Your task to perform on an android device: Go to Reddit.com Image 0: 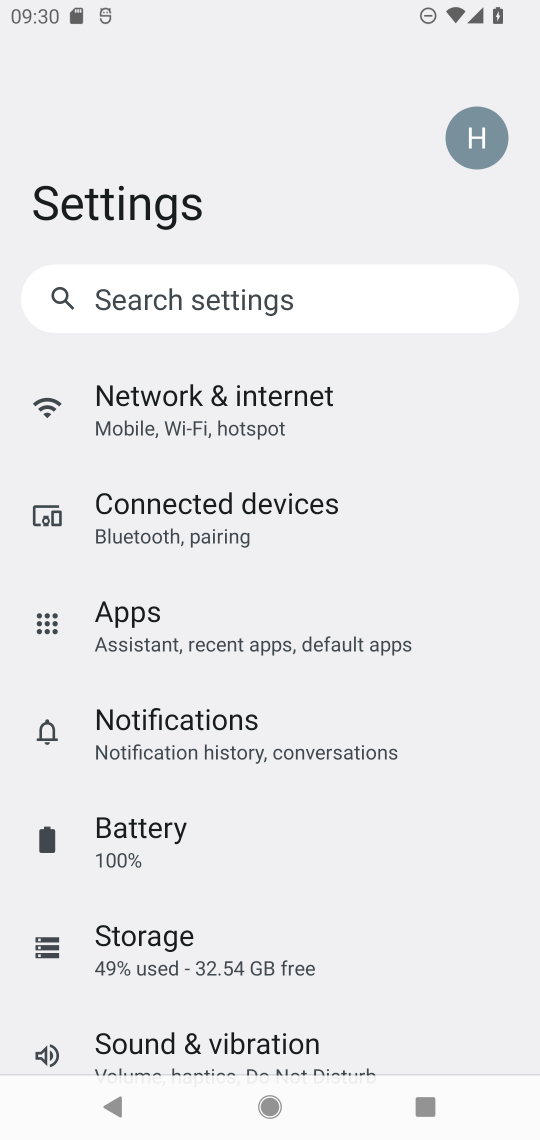
Step 0: drag from (320, 590) to (304, 264)
Your task to perform on an android device: Go to Reddit.com Image 1: 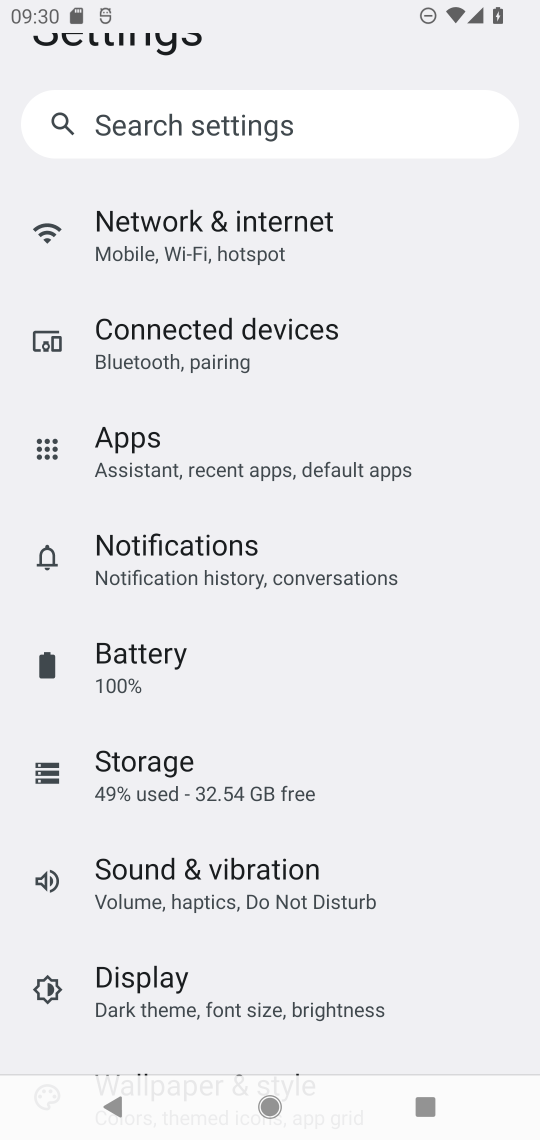
Step 1: press home button
Your task to perform on an android device: Go to Reddit.com Image 2: 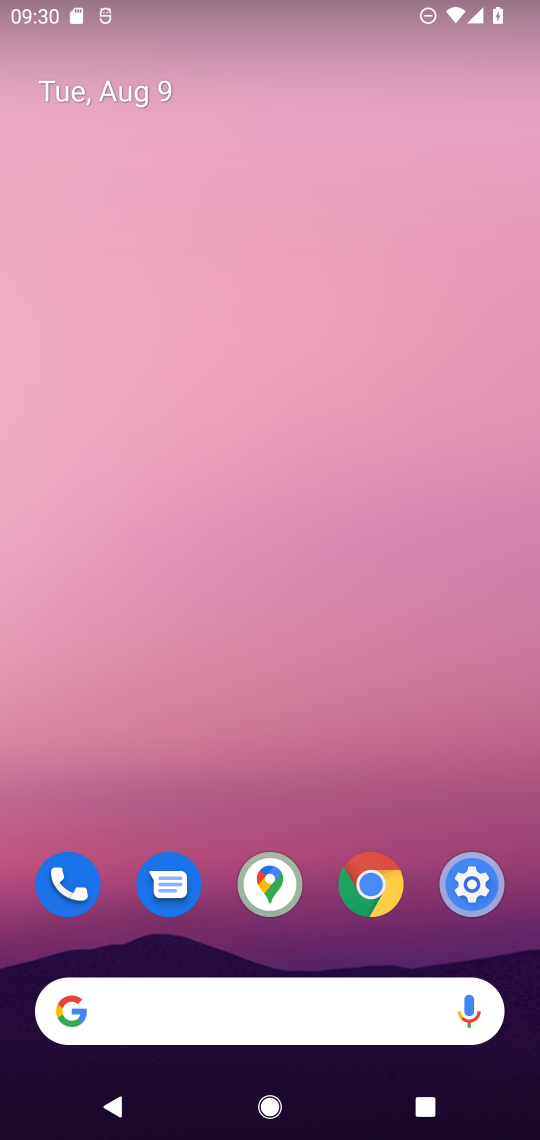
Step 2: drag from (280, 1019) to (254, 294)
Your task to perform on an android device: Go to Reddit.com Image 3: 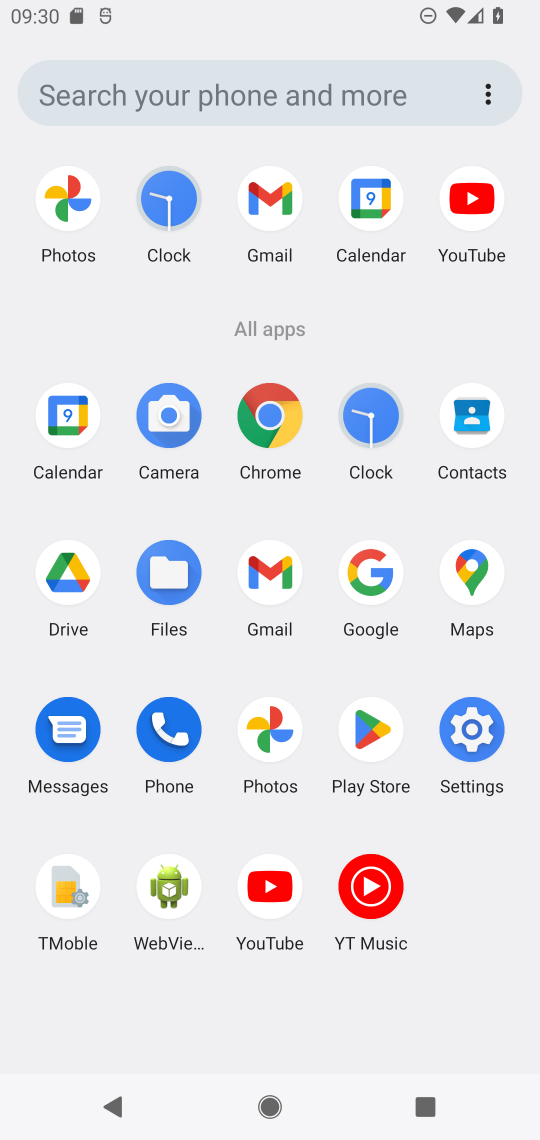
Step 3: click (261, 422)
Your task to perform on an android device: Go to Reddit.com Image 4: 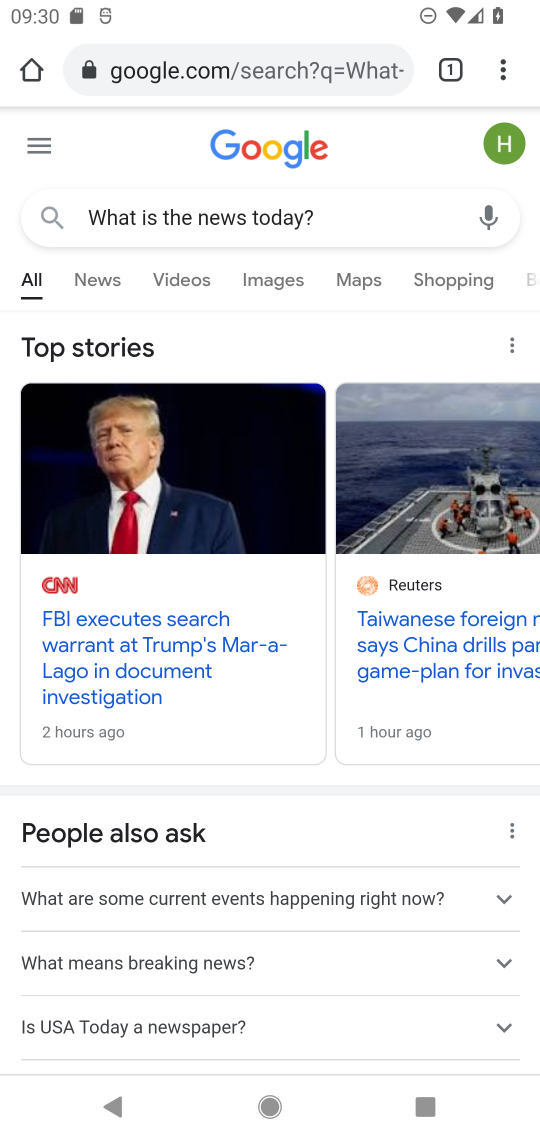
Step 4: click (500, 60)
Your task to perform on an android device: Go to Reddit.com Image 5: 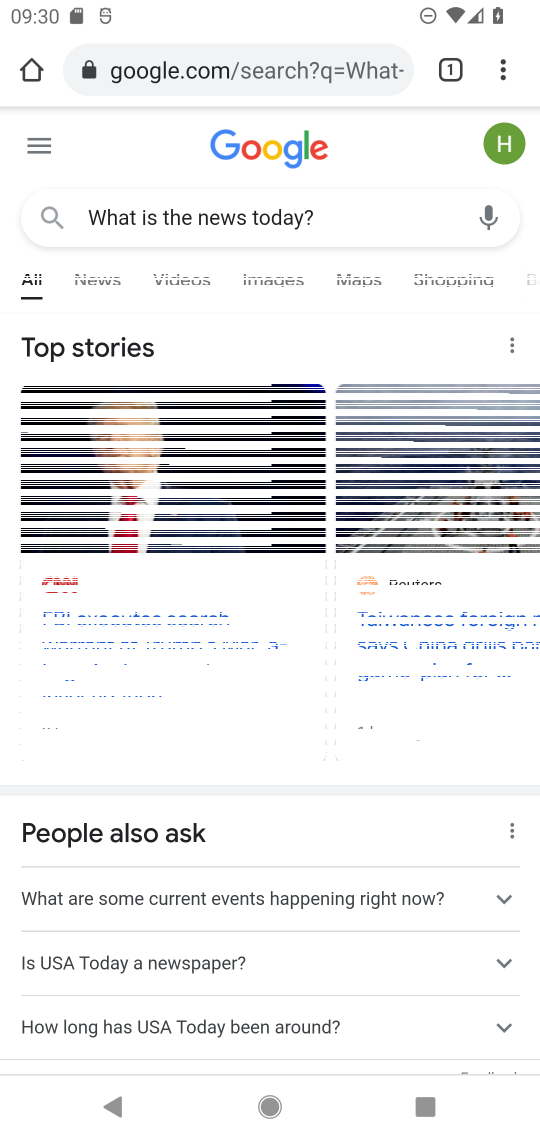
Step 5: click (500, 60)
Your task to perform on an android device: Go to Reddit.com Image 6: 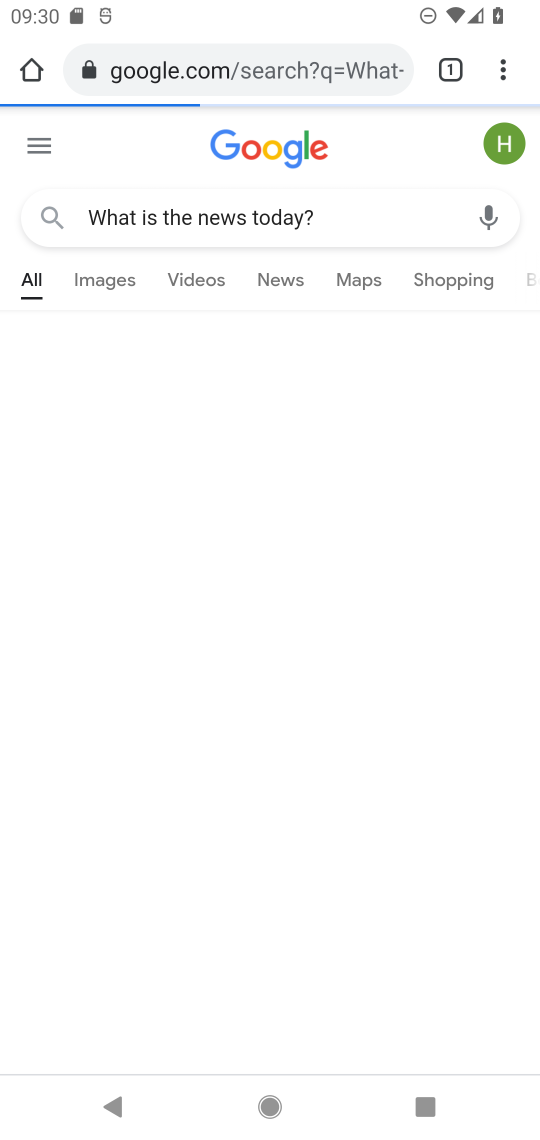
Step 6: click (500, 60)
Your task to perform on an android device: Go to Reddit.com Image 7: 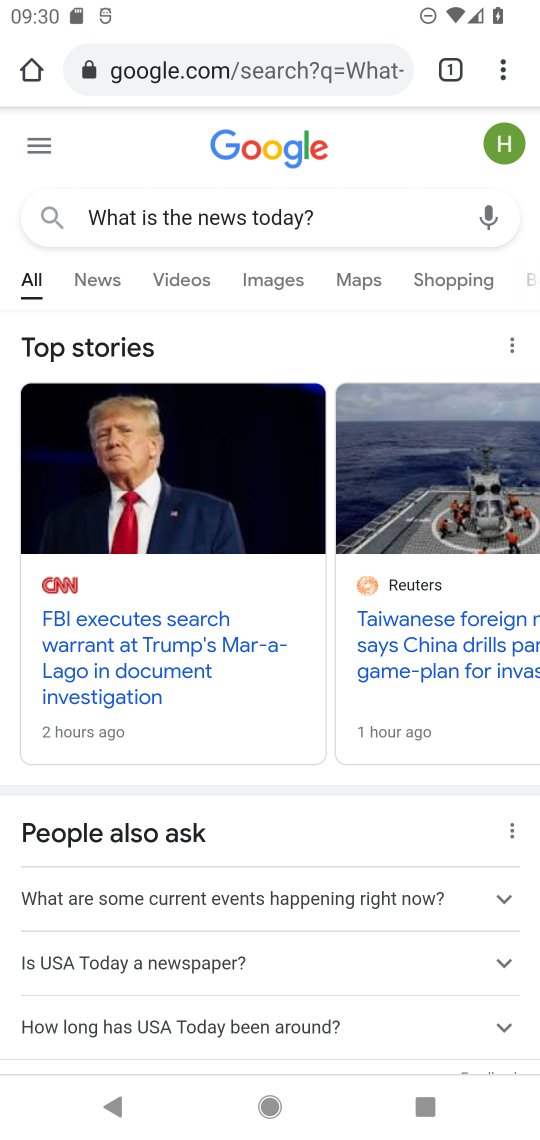
Step 7: click (504, 60)
Your task to perform on an android device: Go to Reddit.com Image 8: 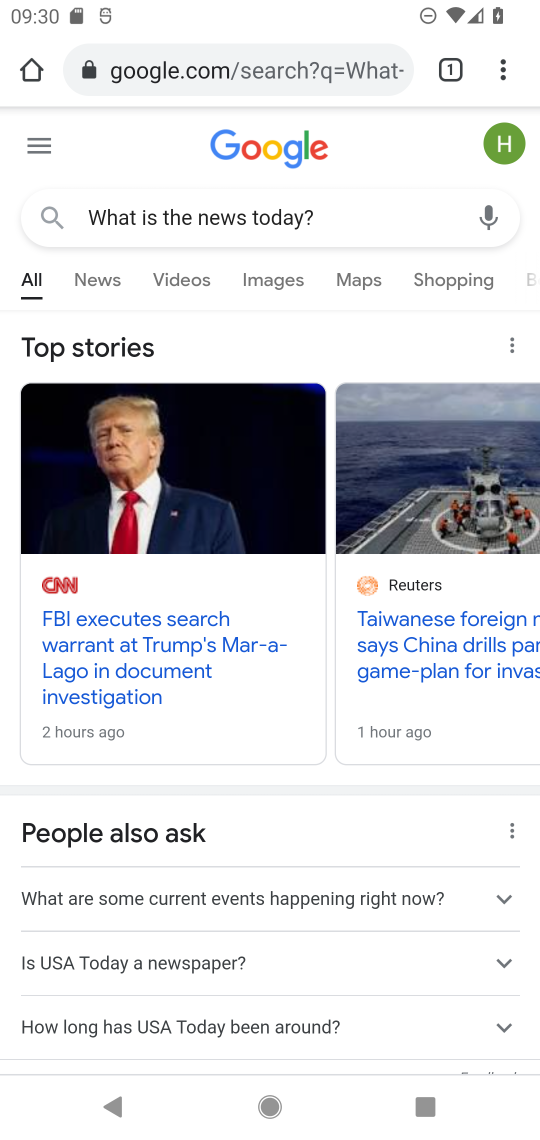
Step 8: click (506, 74)
Your task to perform on an android device: Go to Reddit.com Image 9: 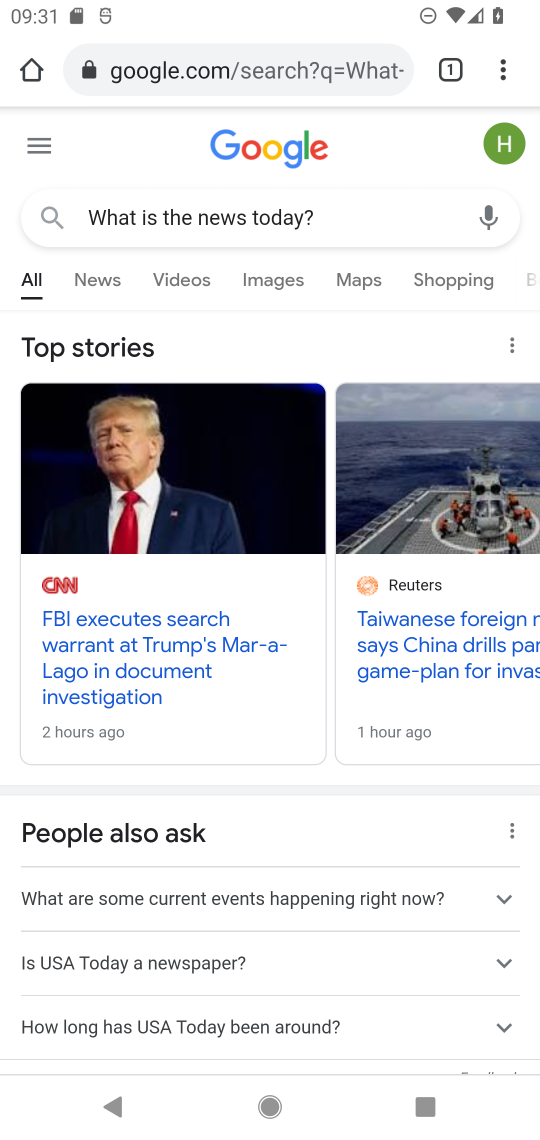
Step 9: click (525, 71)
Your task to perform on an android device: Go to Reddit.com Image 10: 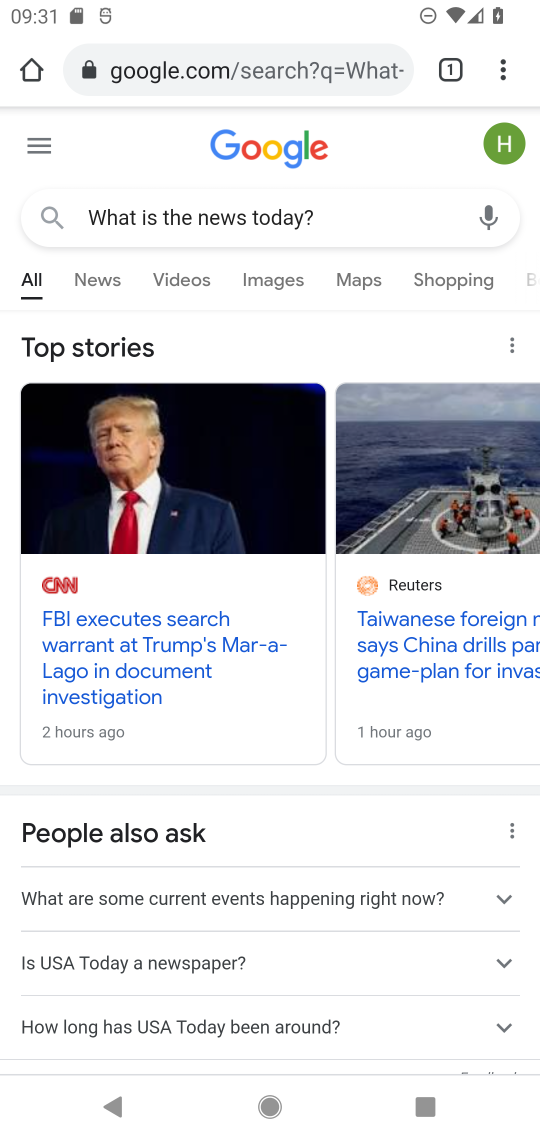
Step 10: click (439, 77)
Your task to perform on an android device: Go to Reddit.com Image 11: 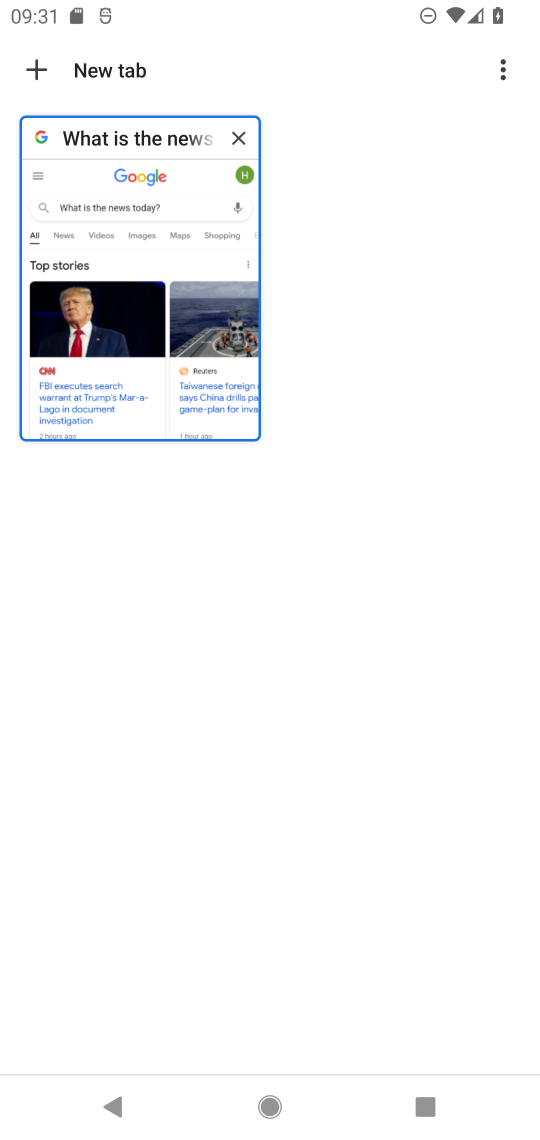
Step 11: click (46, 72)
Your task to perform on an android device: Go to Reddit.com Image 12: 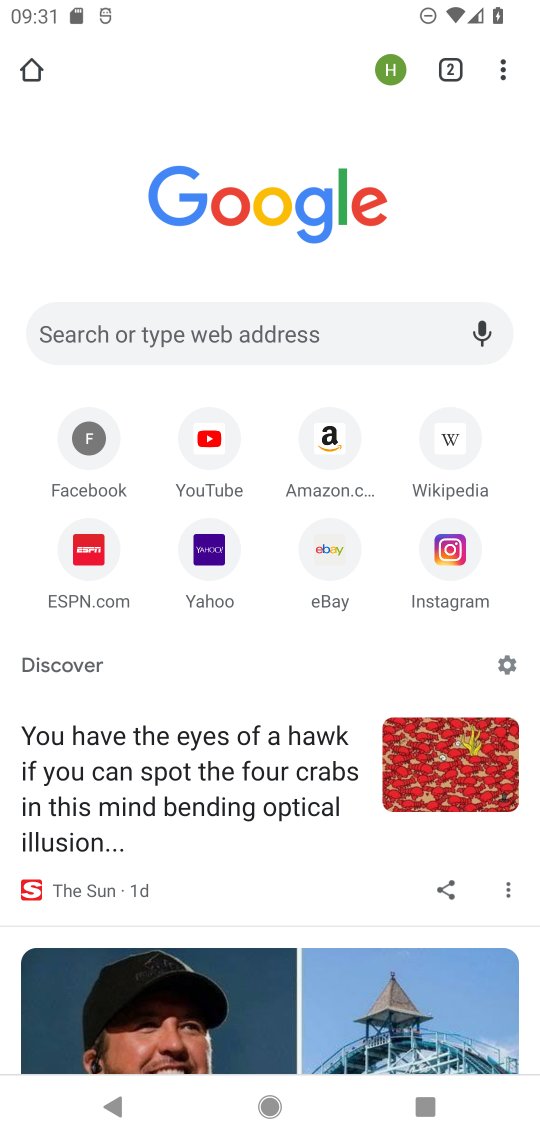
Step 12: click (272, 317)
Your task to perform on an android device: Go to Reddit.com Image 13: 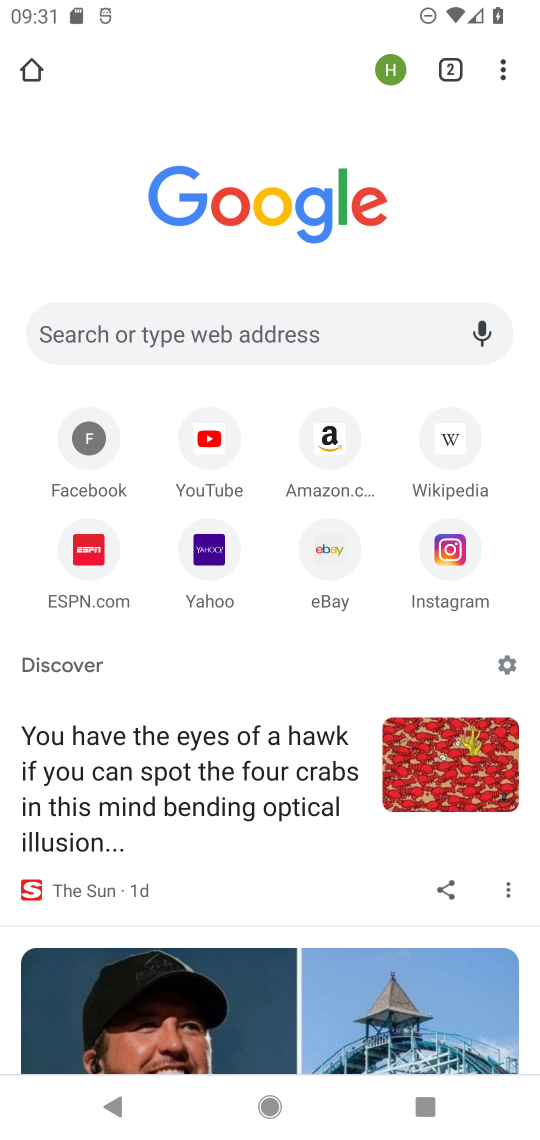
Step 13: type "Reddit.com "
Your task to perform on an android device: Go to Reddit.com Image 14: 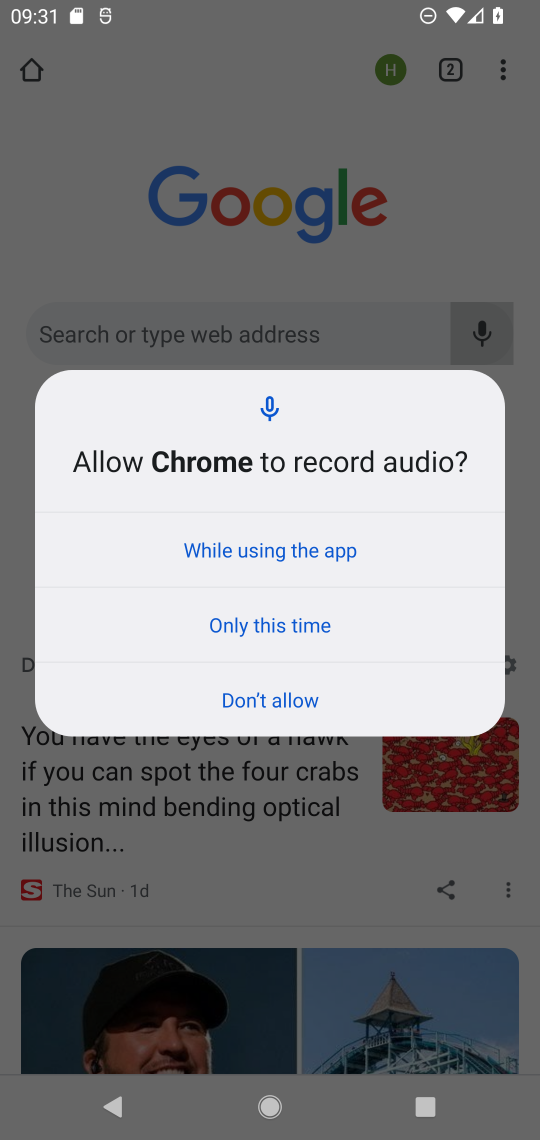
Step 14: click (322, 263)
Your task to perform on an android device: Go to Reddit.com Image 15: 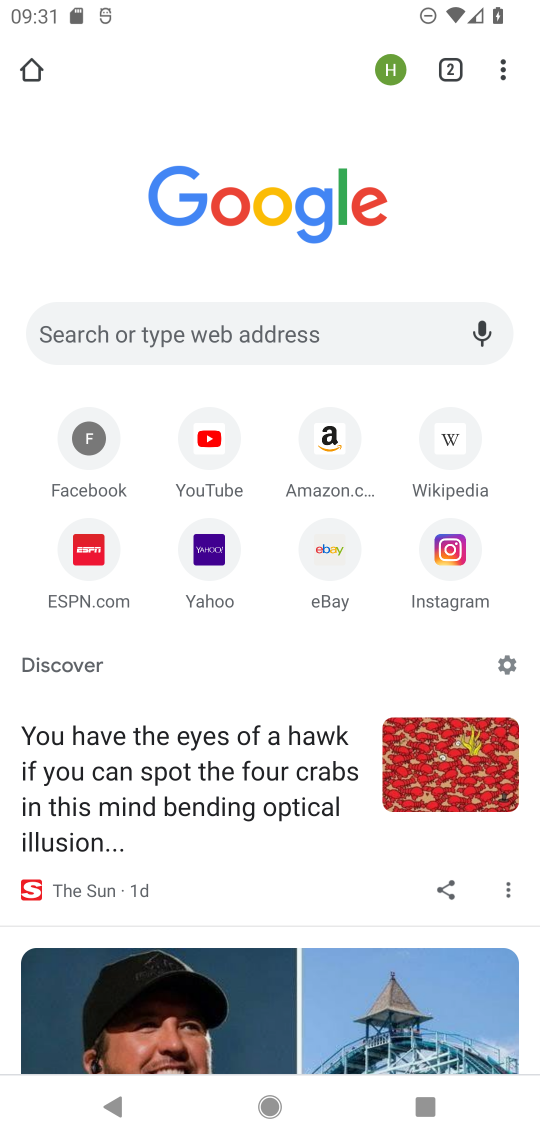
Step 15: click (184, 319)
Your task to perform on an android device: Go to Reddit.com Image 16: 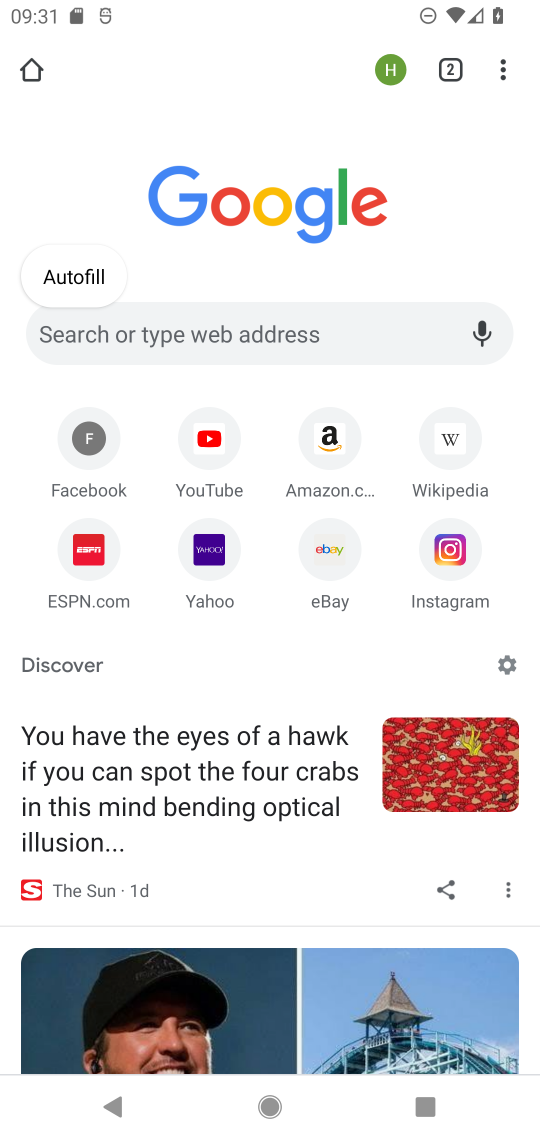
Step 16: type "reddit "
Your task to perform on an android device: Go to Reddit.com Image 17: 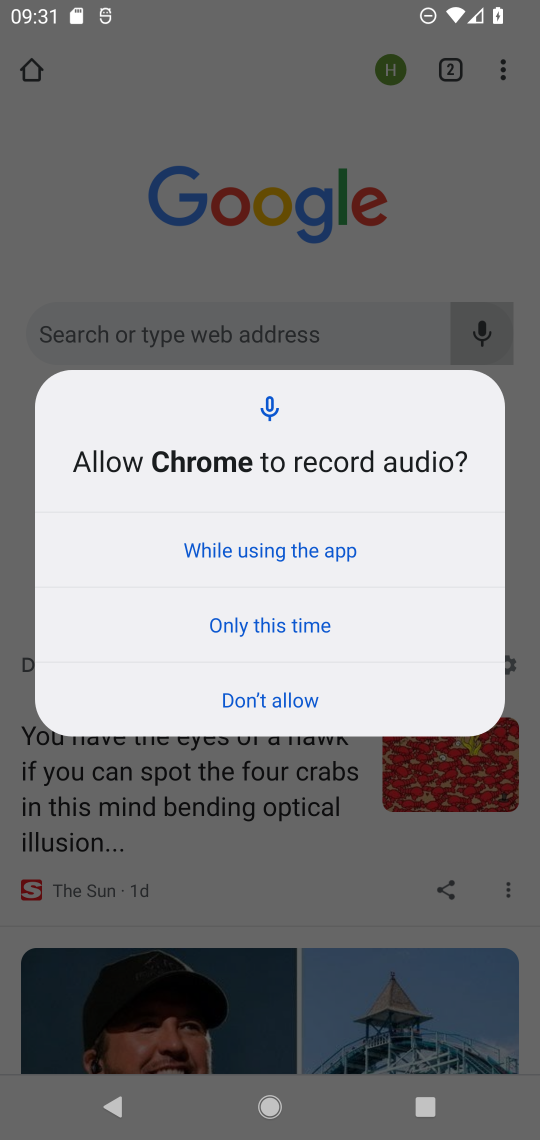
Step 17: click (190, 172)
Your task to perform on an android device: Go to Reddit.com Image 18: 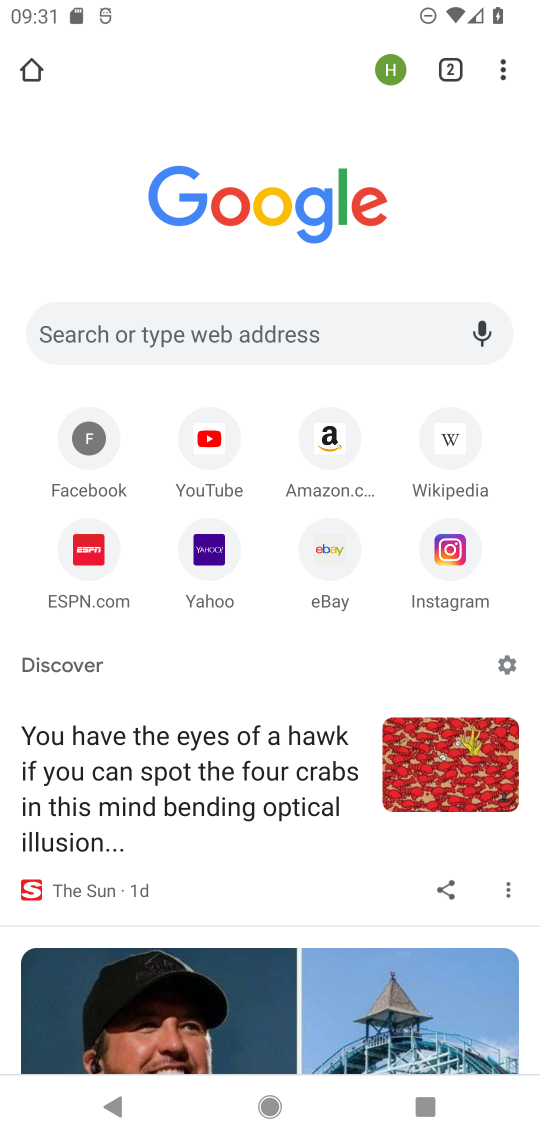
Step 18: click (180, 333)
Your task to perform on an android device: Go to Reddit.com Image 19: 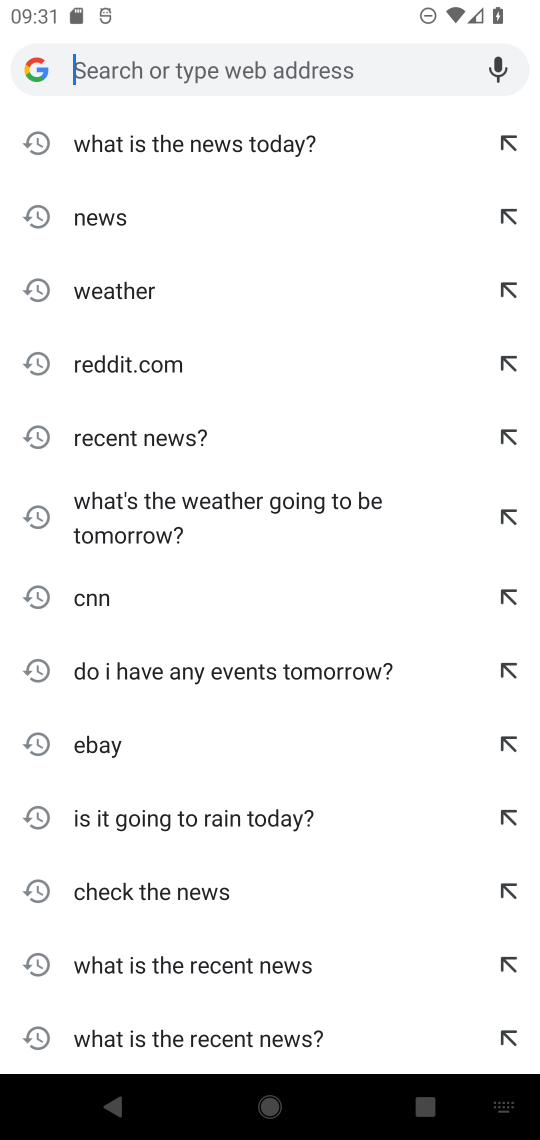
Step 19: click (152, 355)
Your task to perform on an android device: Go to Reddit.com Image 20: 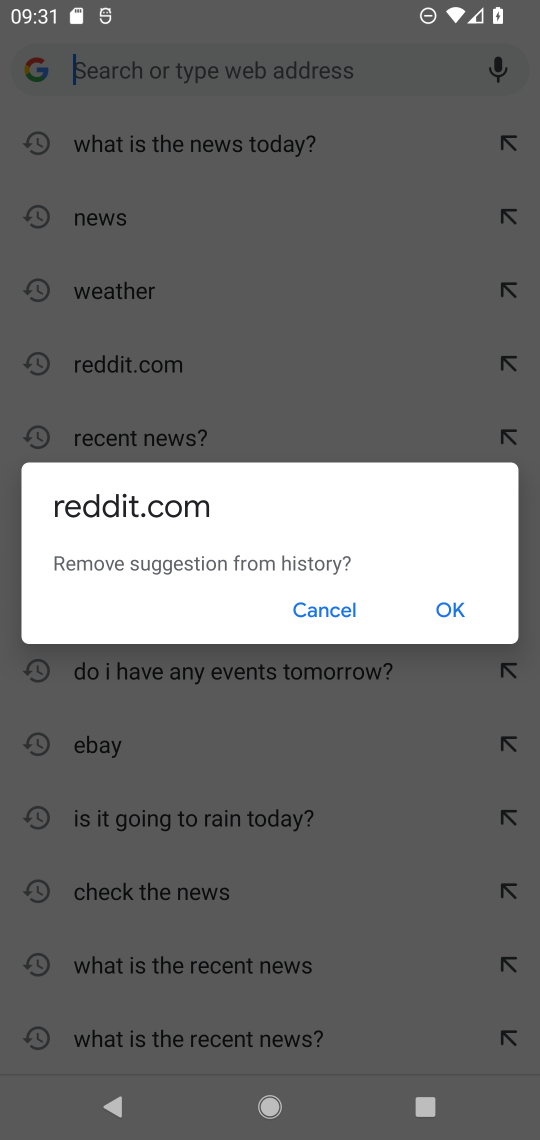
Step 20: click (425, 602)
Your task to perform on an android device: Go to Reddit.com Image 21: 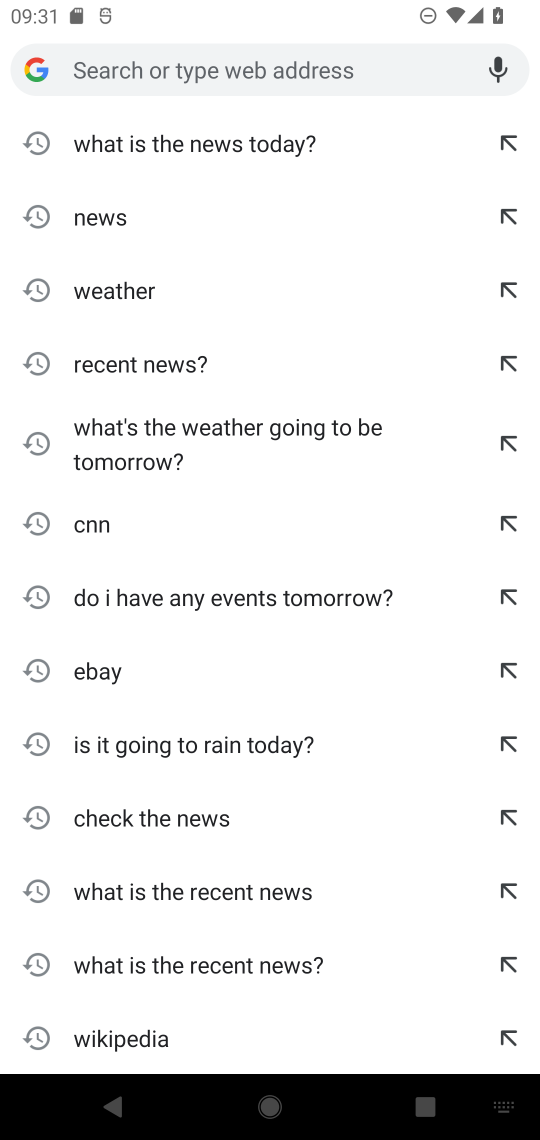
Step 21: click (146, 68)
Your task to perform on an android device: Go to Reddit.com Image 22: 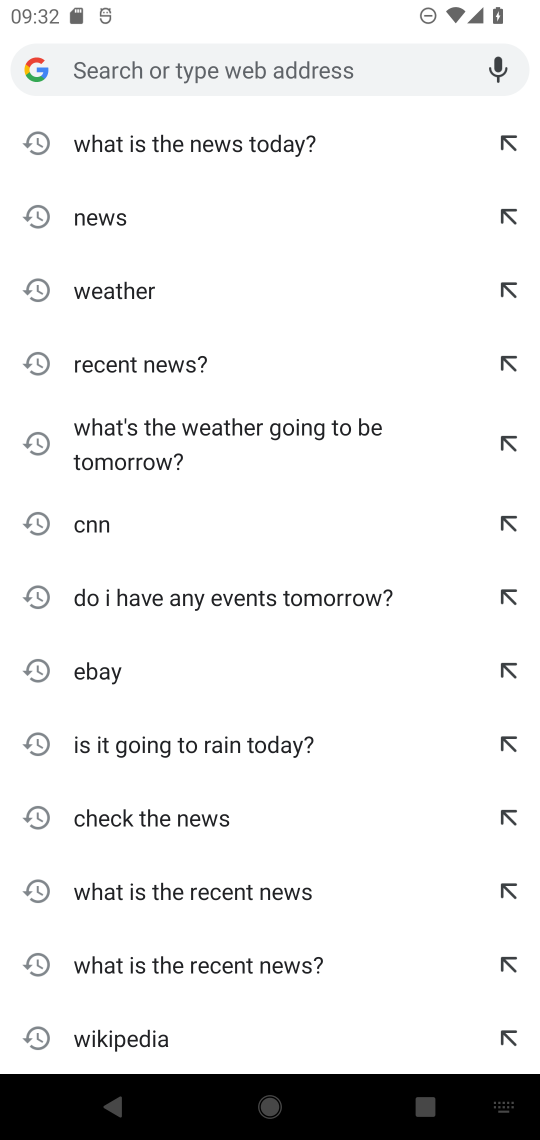
Step 22: type "reddit "
Your task to perform on an android device: Go to Reddit.com Image 23: 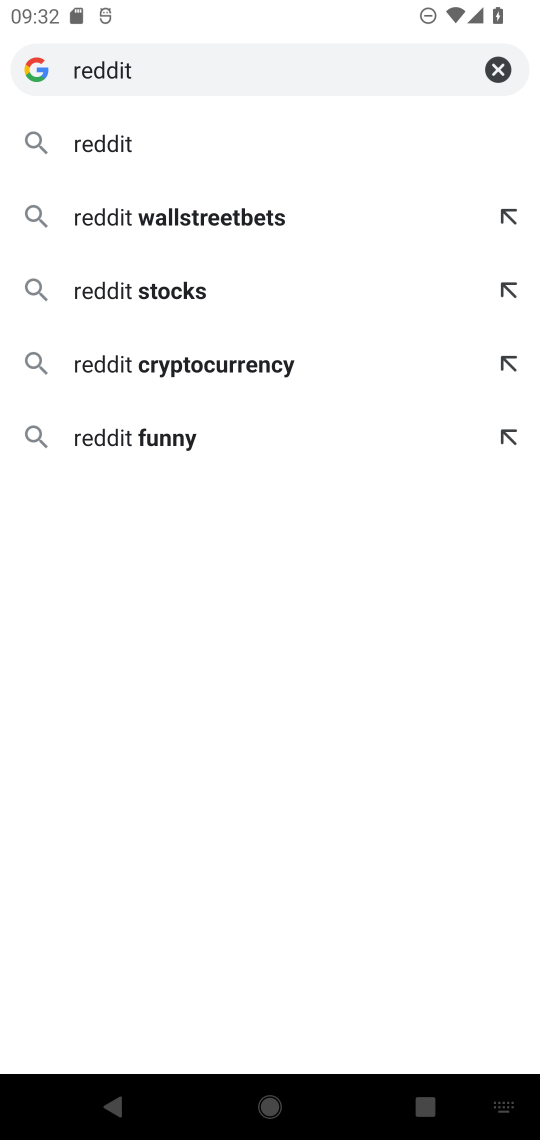
Step 23: click (101, 159)
Your task to perform on an android device: Go to Reddit.com Image 24: 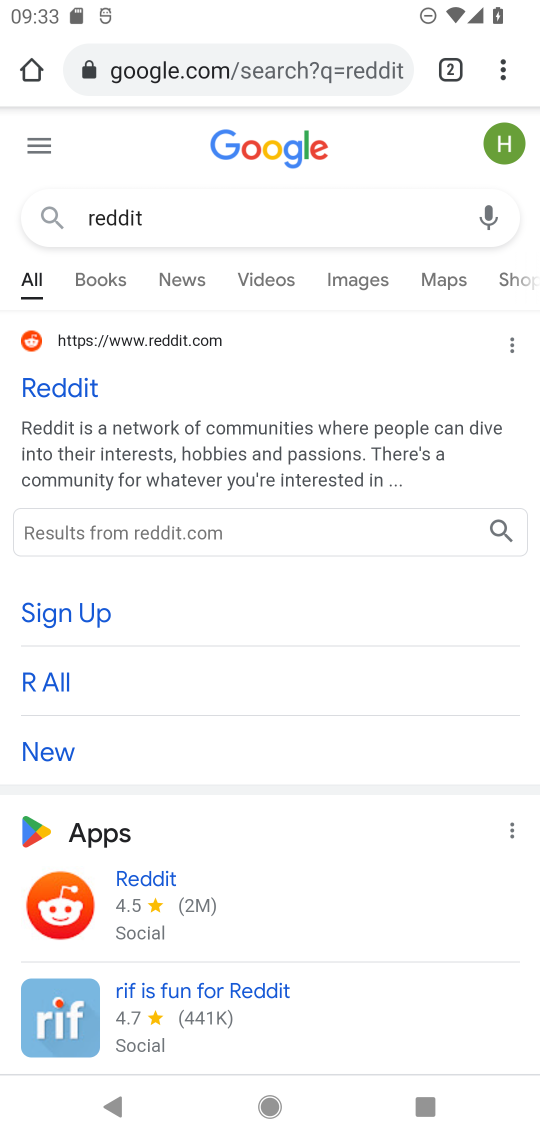
Step 24: task complete